Your task to perform on an android device: open chrome and create a bookmark for the current page Image 0: 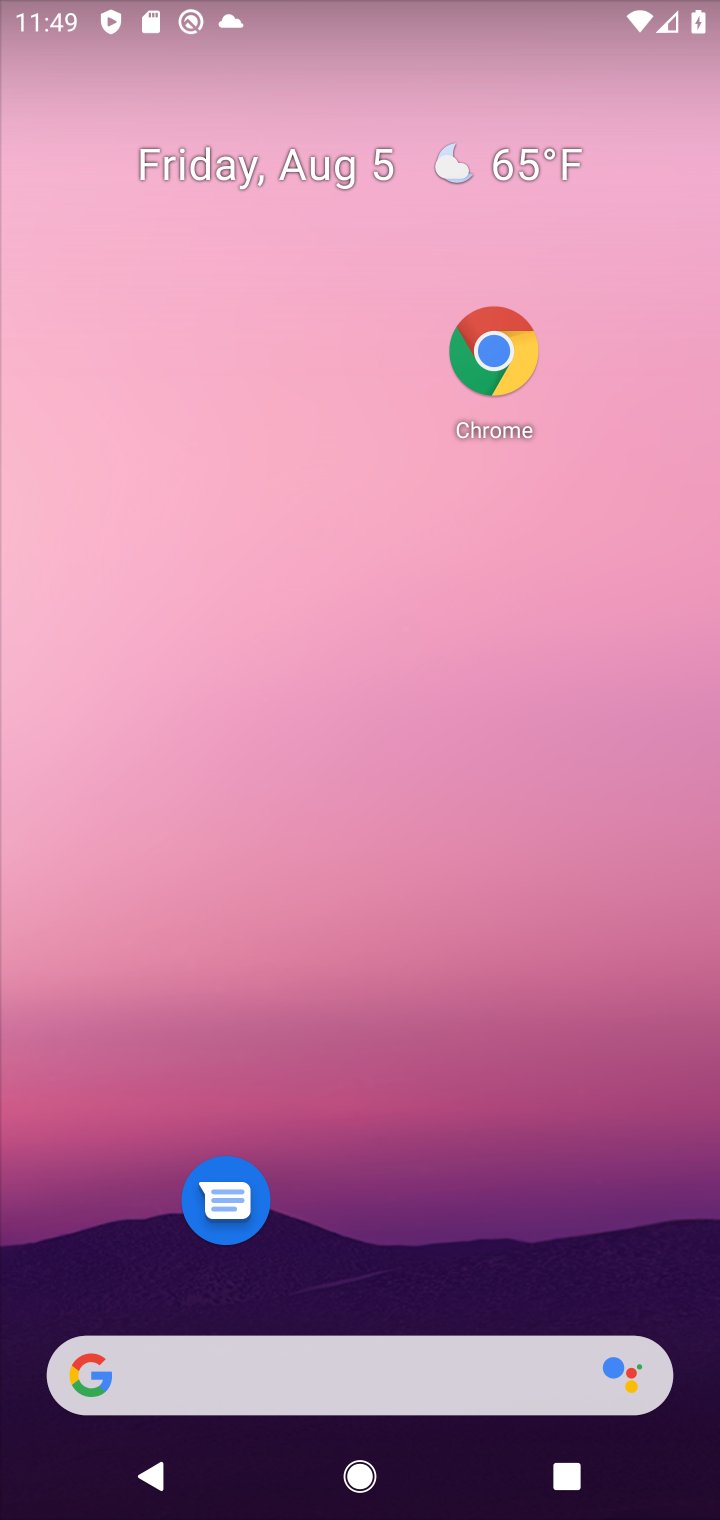
Step 0: drag from (378, 1305) to (601, 241)
Your task to perform on an android device: open chrome and create a bookmark for the current page Image 1: 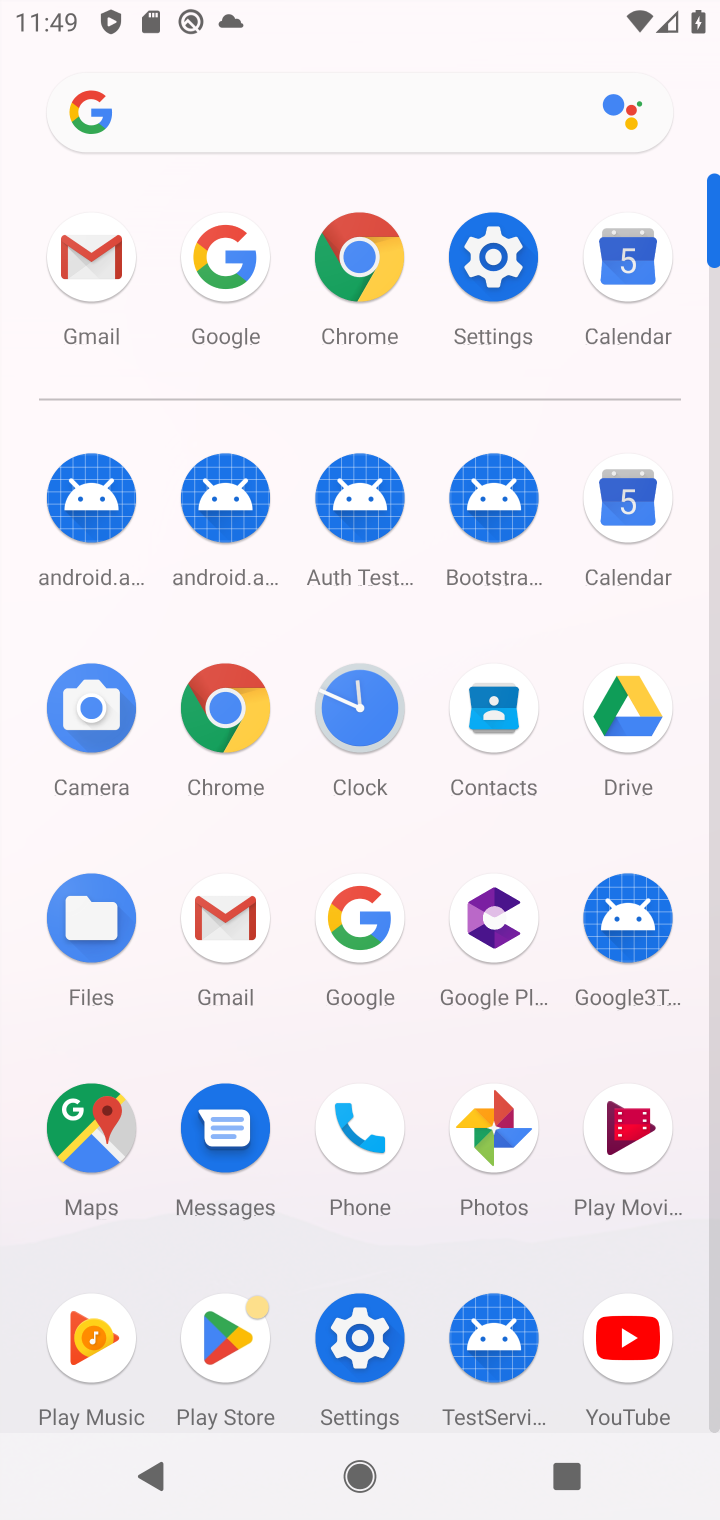
Step 1: click (366, 296)
Your task to perform on an android device: open chrome and create a bookmark for the current page Image 2: 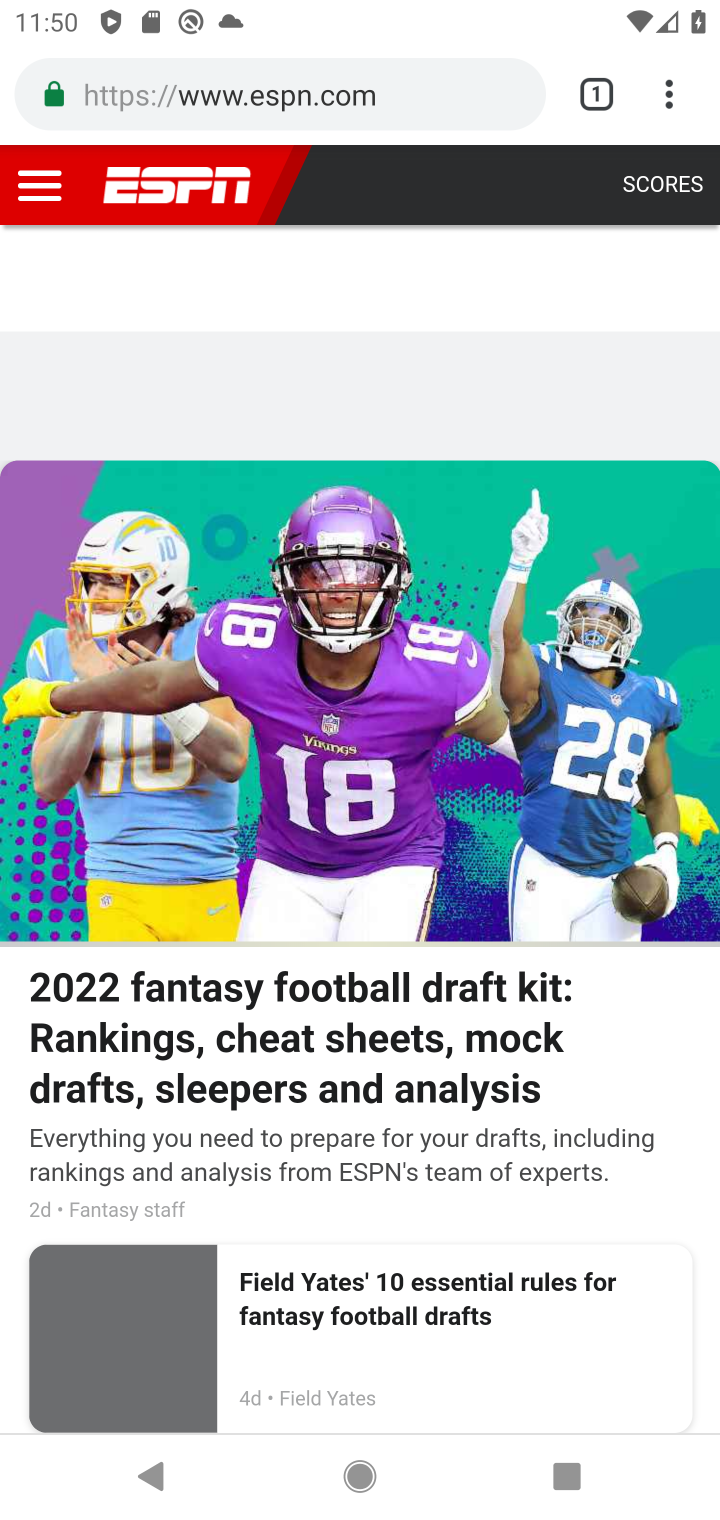
Step 2: click (677, 109)
Your task to perform on an android device: open chrome and create a bookmark for the current page Image 3: 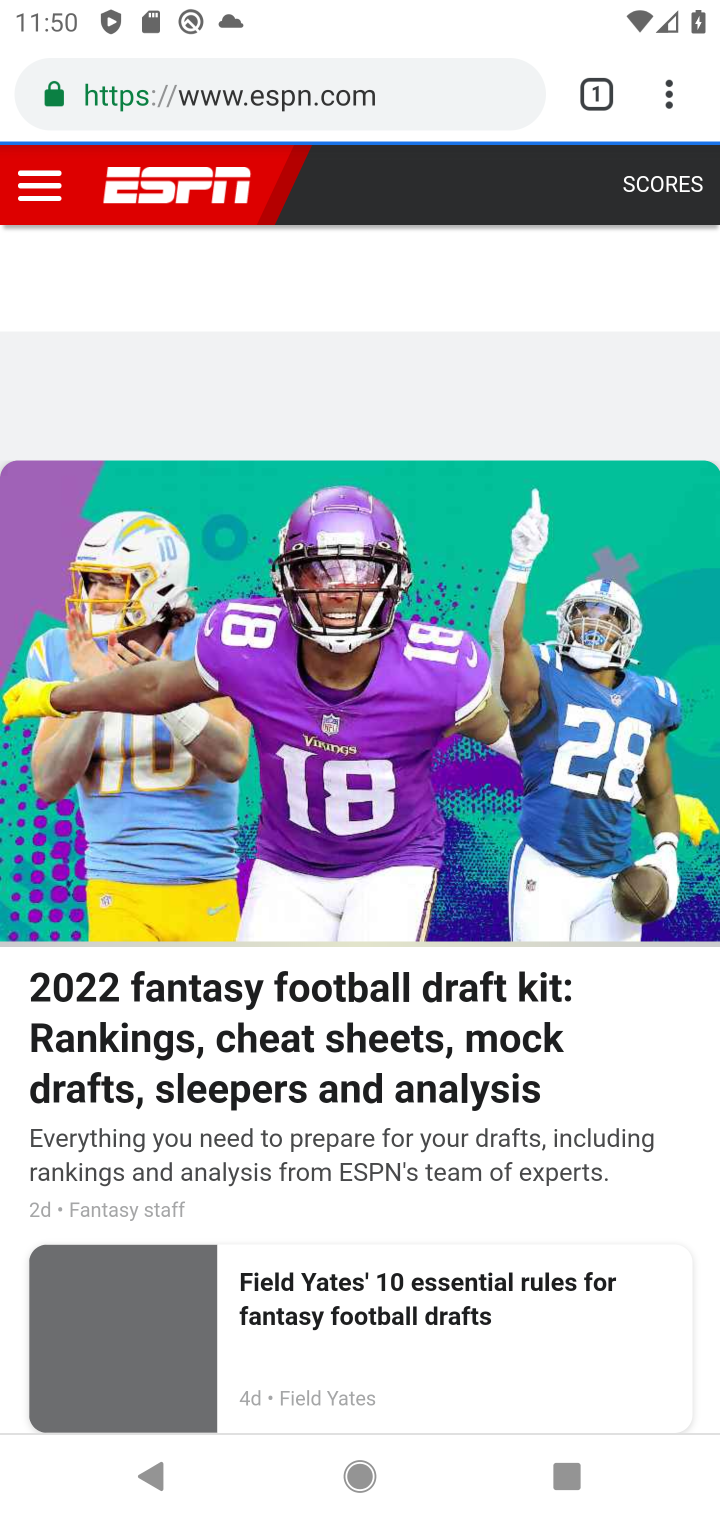
Step 3: click (657, 100)
Your task to perform on an android device: open chrome and create a bookmark for the current page Image 4: 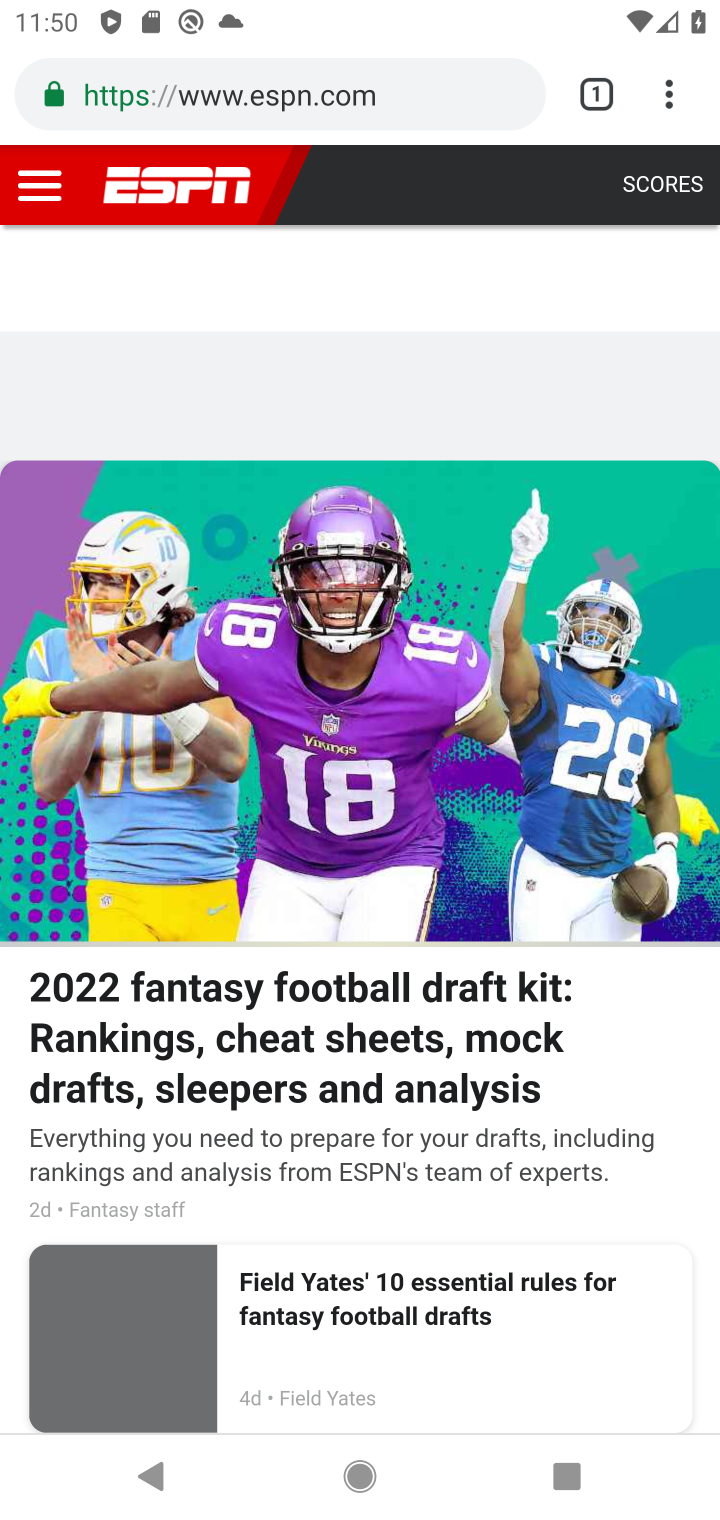
Step 4: click (678, 108)
Your task to perform on an android device: open chrome and create a bookmark for the current page Image 5: 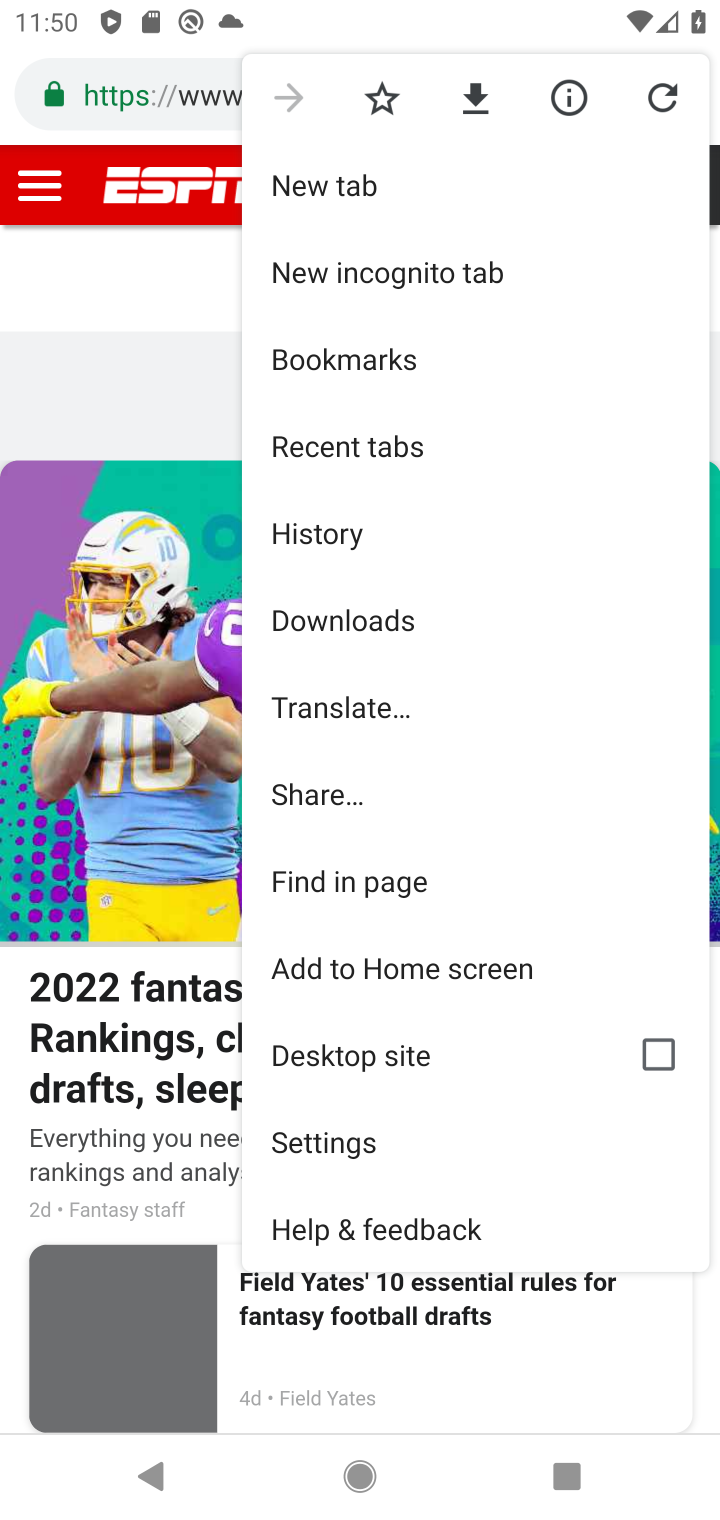
Step 5: click (387, 99)
Your task to perform on an android device: open chrome and create a bookmark for the current page Image 6: 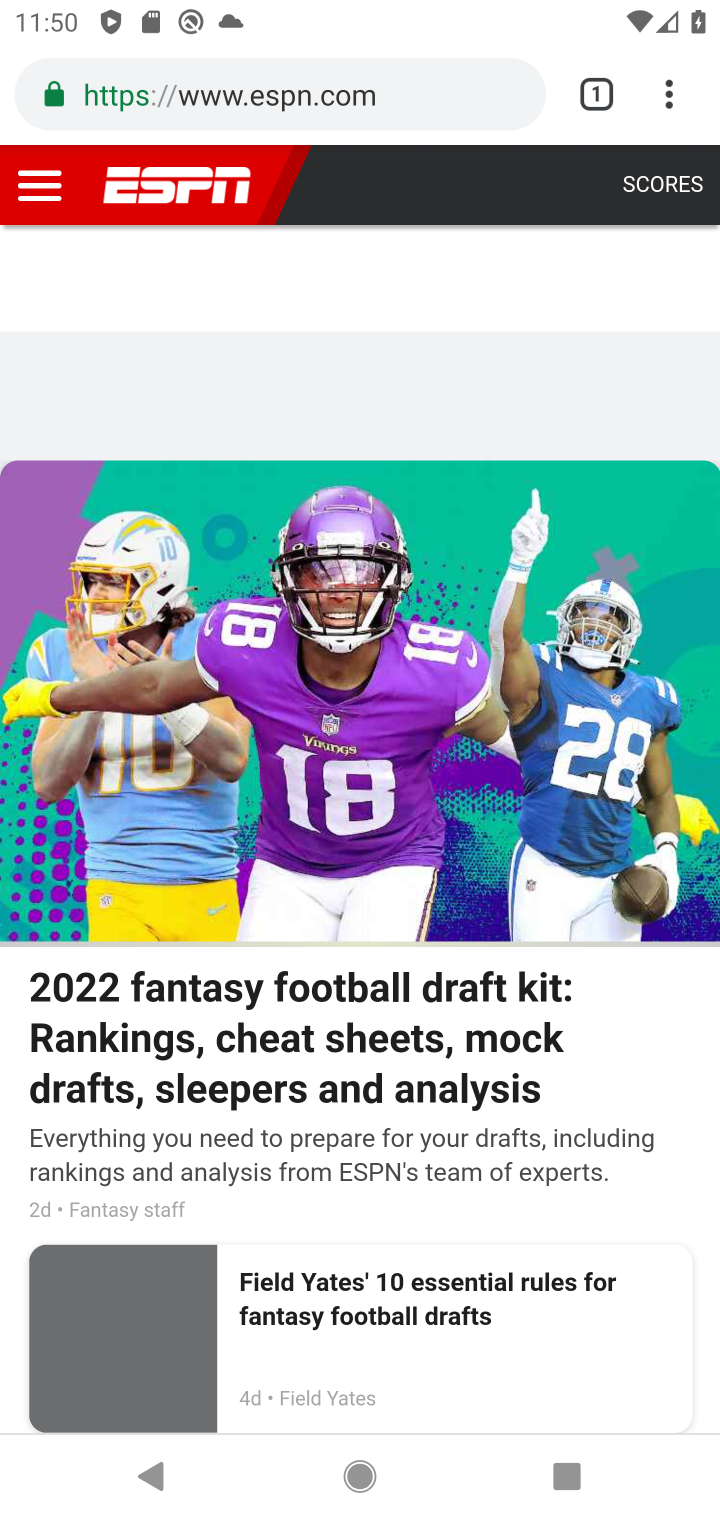
Step 6: task complete